Your task to perform on an android device: install app "ZOOM Cloud Meetings" Image 0: 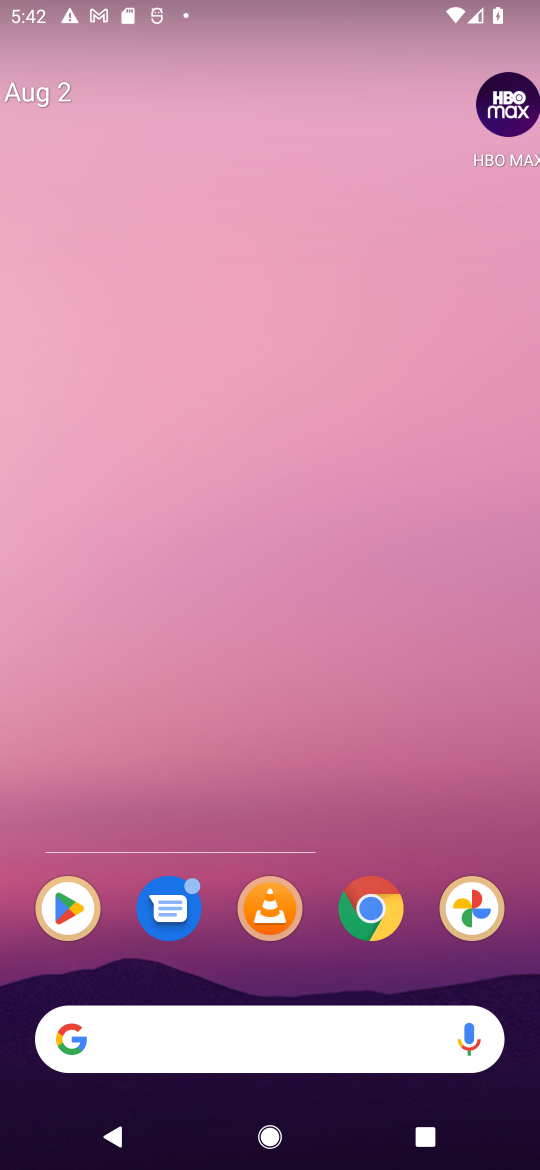
Step 0: press home button
Your task to perform on an android device: install app "ZOOM Cloud Meetings" Image 1: 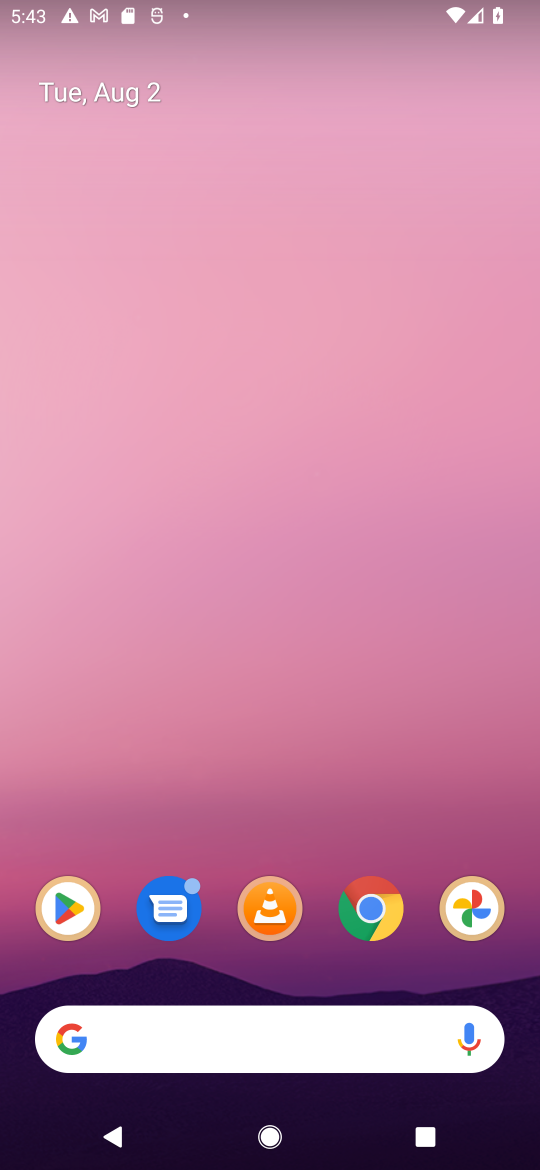
Step 1: click (58, 894)
Your task to perform on an android device: install app "ZOOM Cloud Meetings" Image 2: 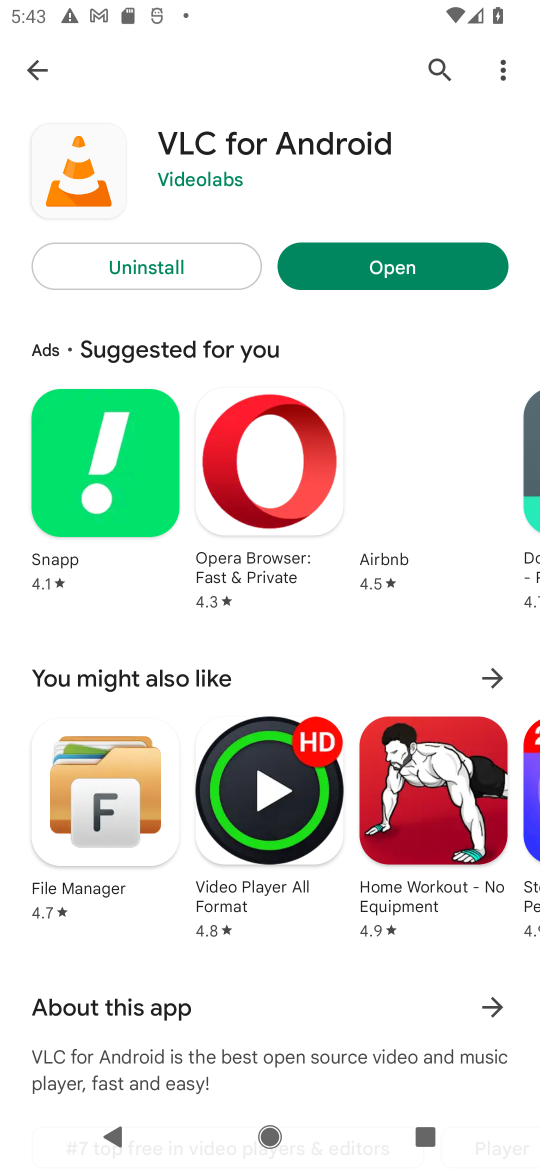
Step 2: click (437, 66)
Your task to perform on an android device: install app "ZOOM Cloud Meetings" Image 3: 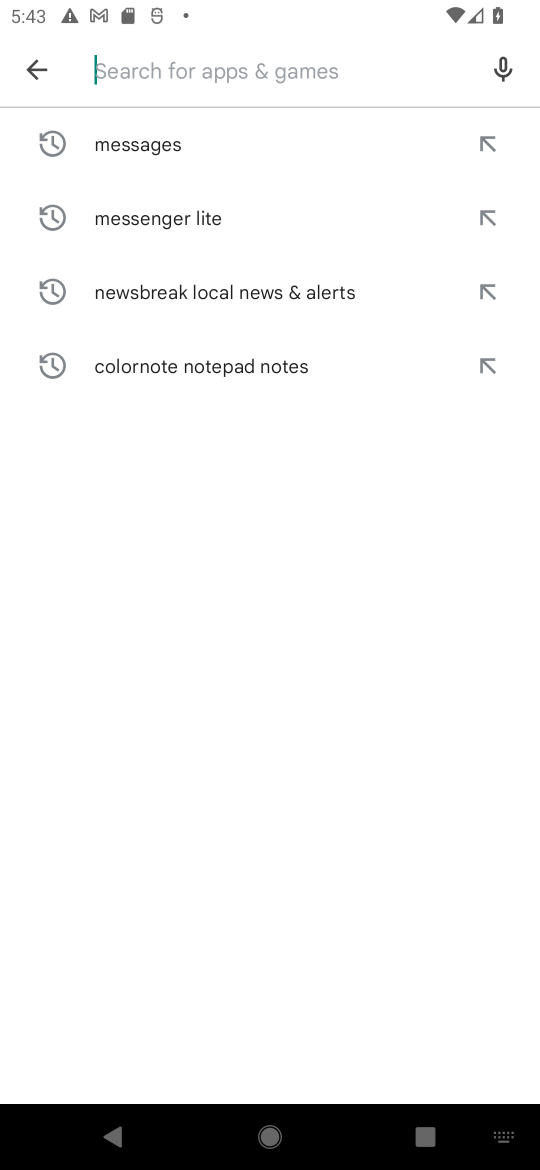
Step 3: type "ZOOM Cloud Meetings"
Your task to perform on an android device: install app "ZOOM Cloud Meetings" Image 4: 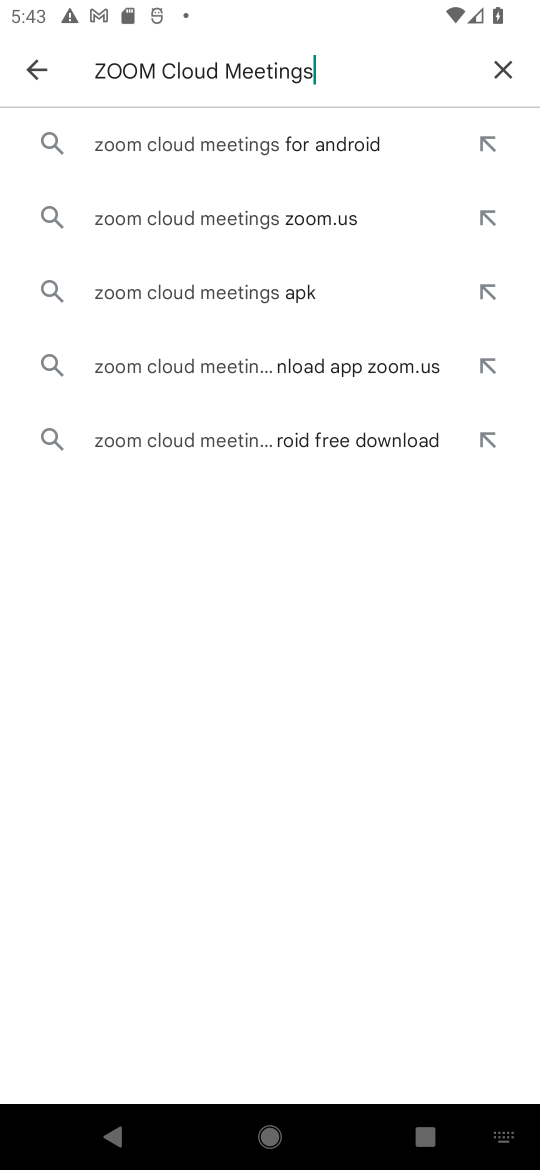
Step 4: click (248, 146)
Your task to perform on an android device: install app "ZOOM Cloud Meetings" Image 5: 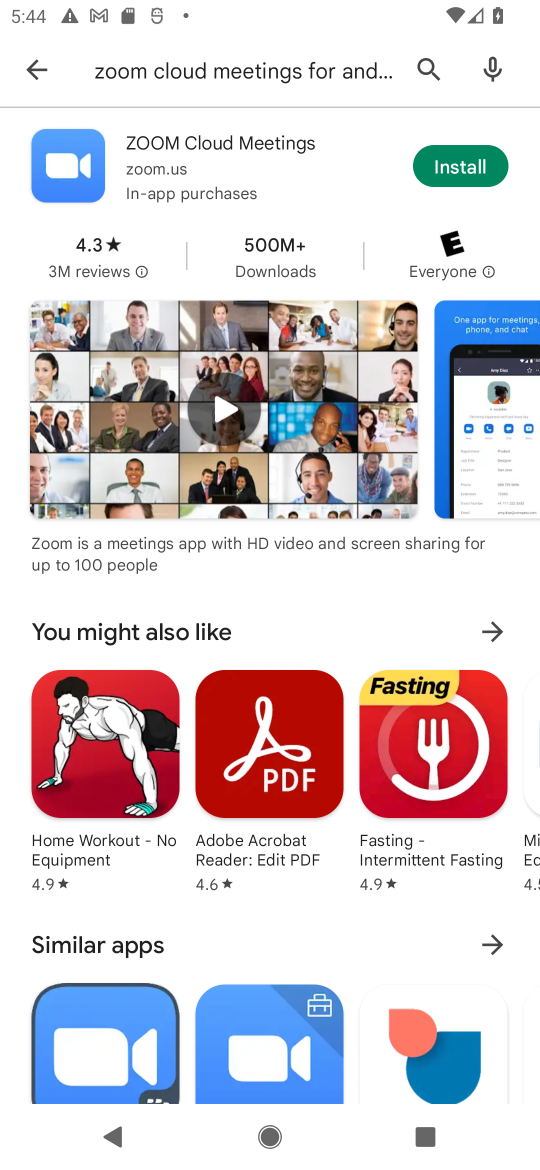
Step 5: click (456, 160)
Your task to perform on an android device: install app "ZOOM Cloud Meetings" Image 6: 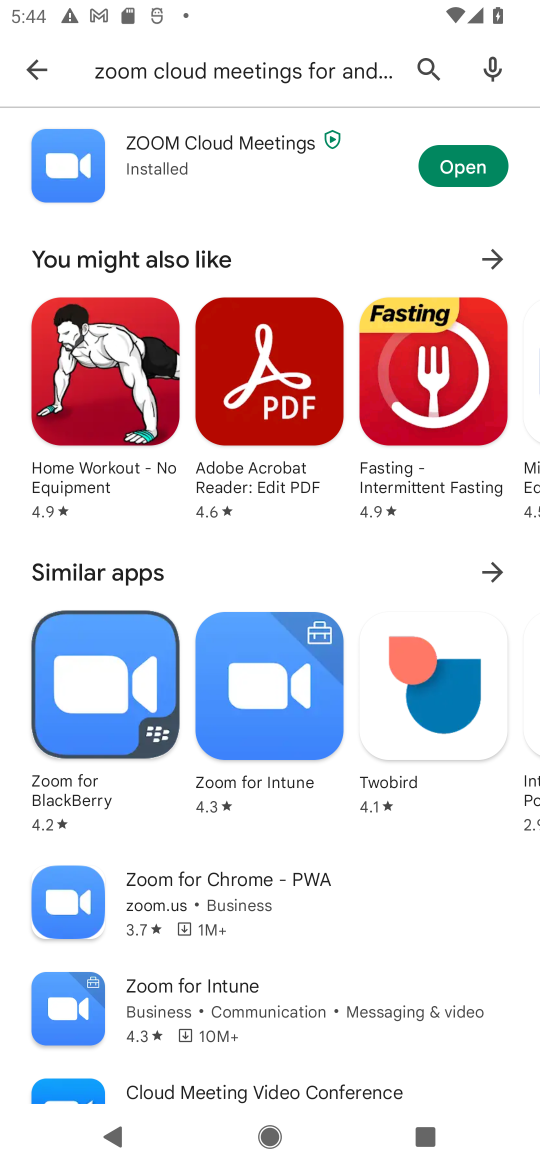
Step 6: click (465, 161)
Your task to perform on an android device: install app "ZOOM Cloud Meetings" Image 7: 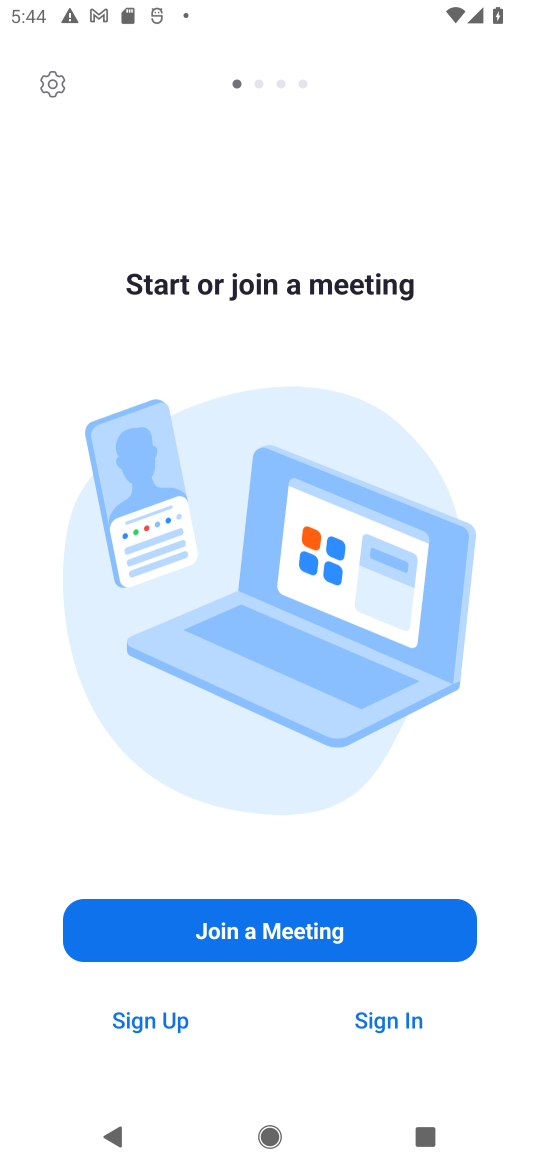
Step 7: task complete